Your task to perform on an android device: add a label to a message in the gmail app Image 0: 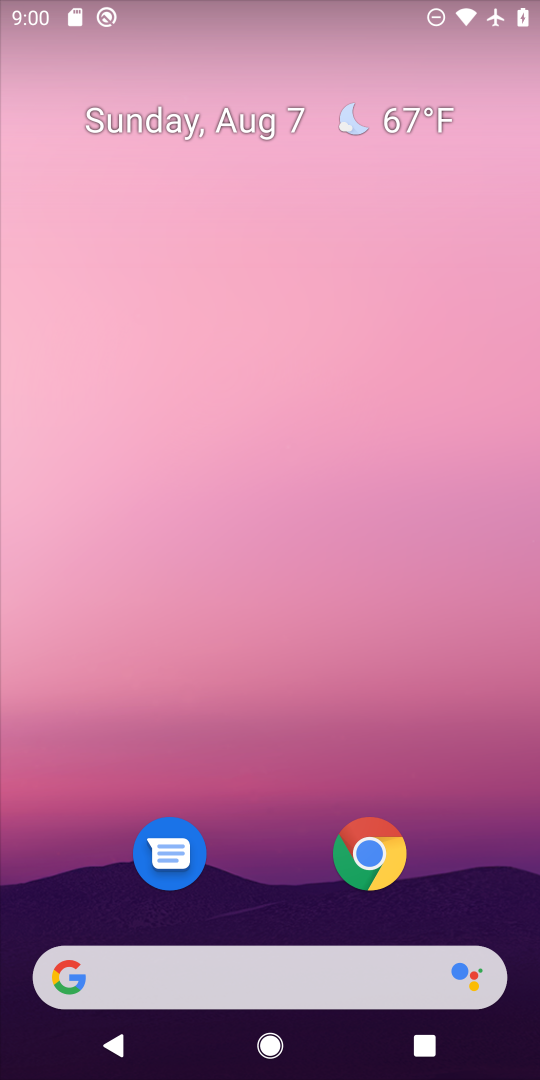
Step 0: drag from (278, 539) to (281, 388)
Your task to perform on an android device: add a label to a message in the gmail app Image 1: 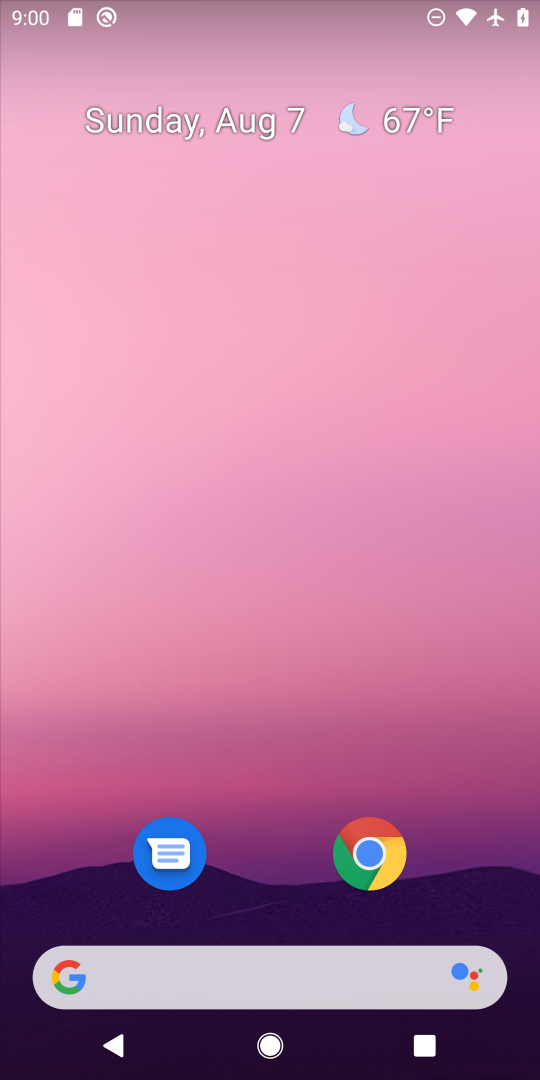
Step 1: drag from (258, 896) to (214, 334)
Your task to perform on an android device: add a label to a message in the gmail app Image 2: 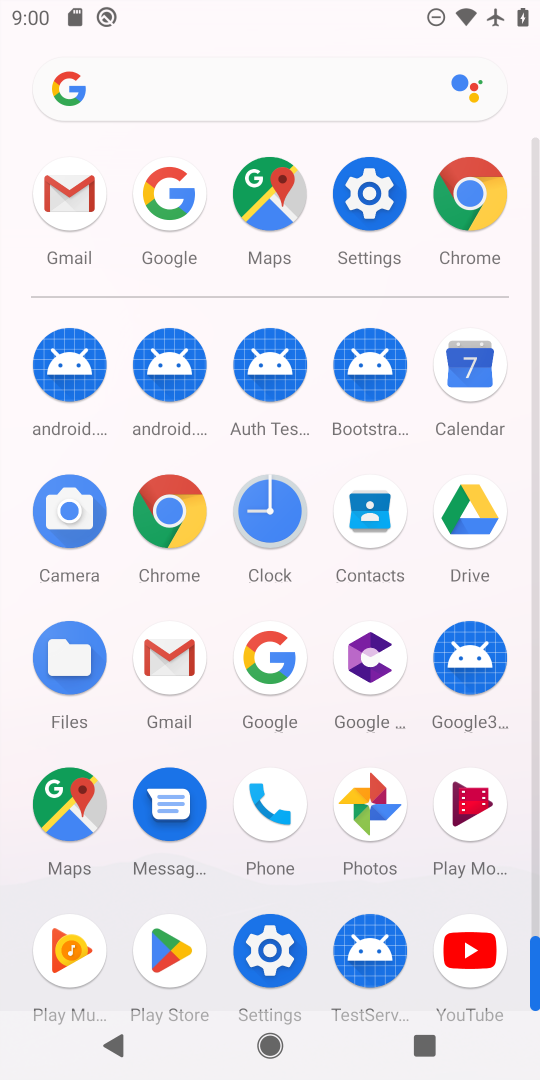
Step 2: click (191, 678)
Your task to perform on an android device: add a label to a message in the gmail app Image 3: 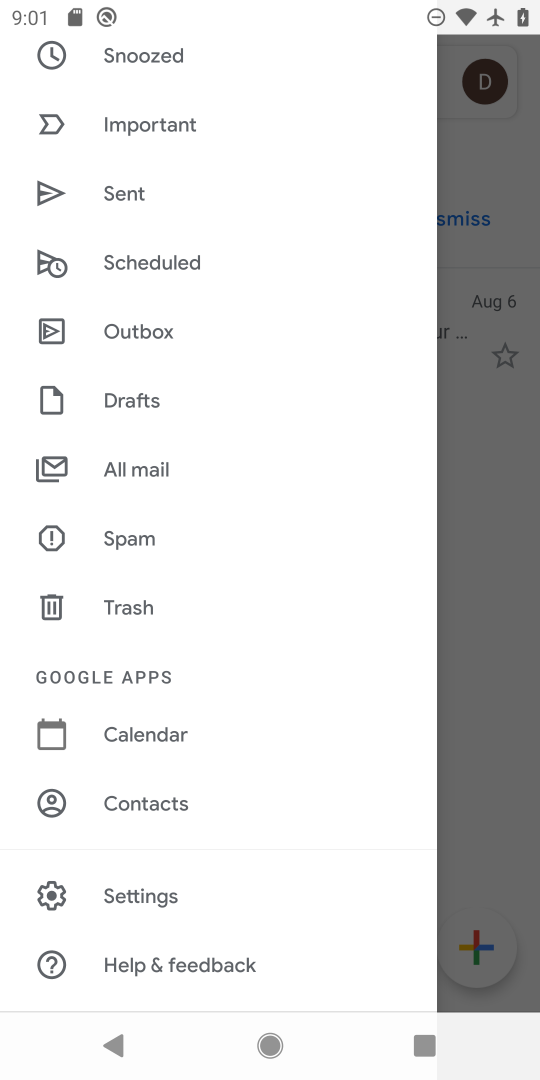
Step 3: click (167, 477)
Your task to perform on an android device: add a label to a message in the gmail app Image 4: 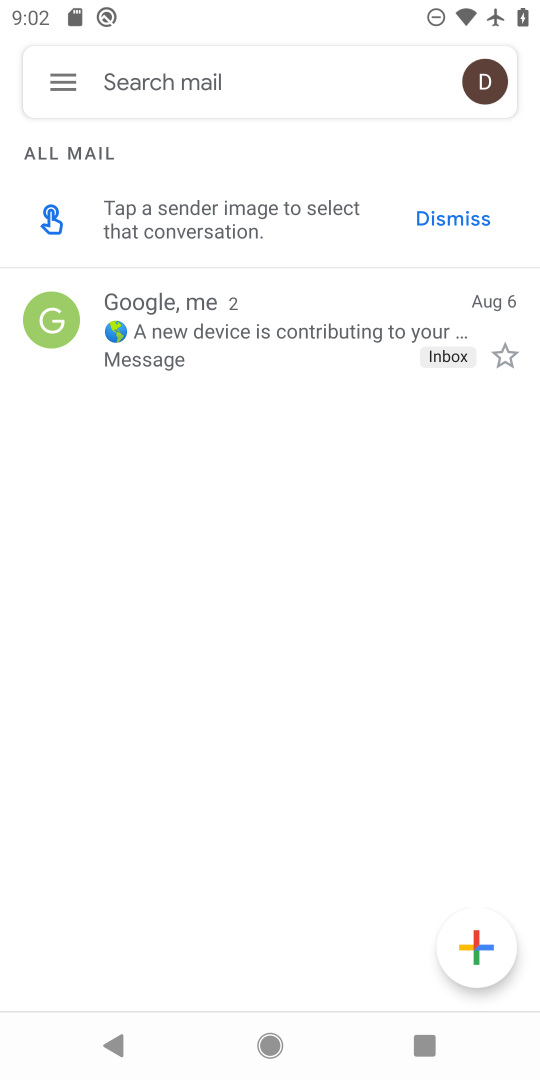
Step 4: click (273, 334)
Your task to perform on an android device: add a label to a message in the gmail app Image 5: 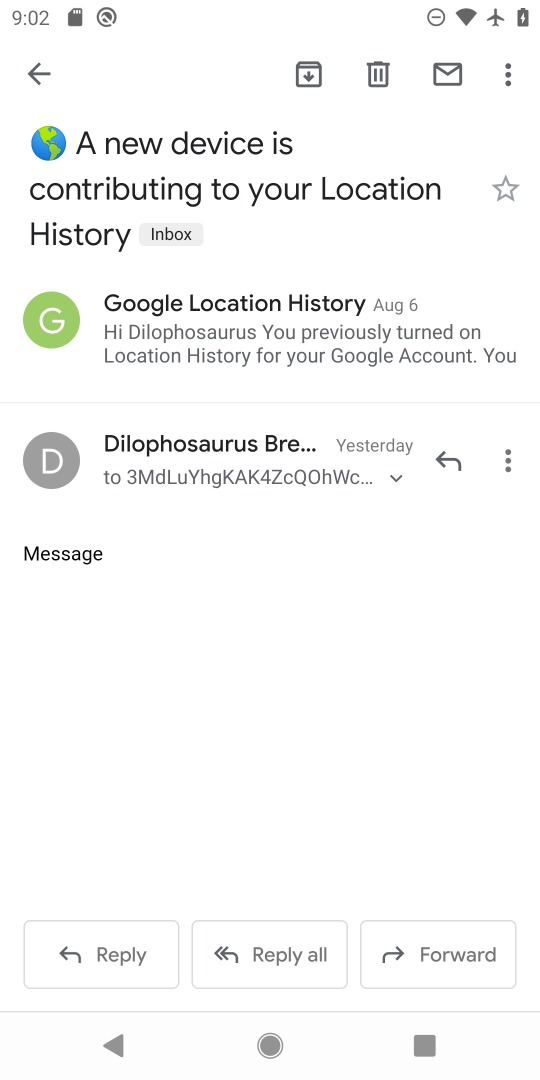
Step 5: click (510, 83)
Your task to perform on an android device: add a label to a message in the gmail app Image 6: 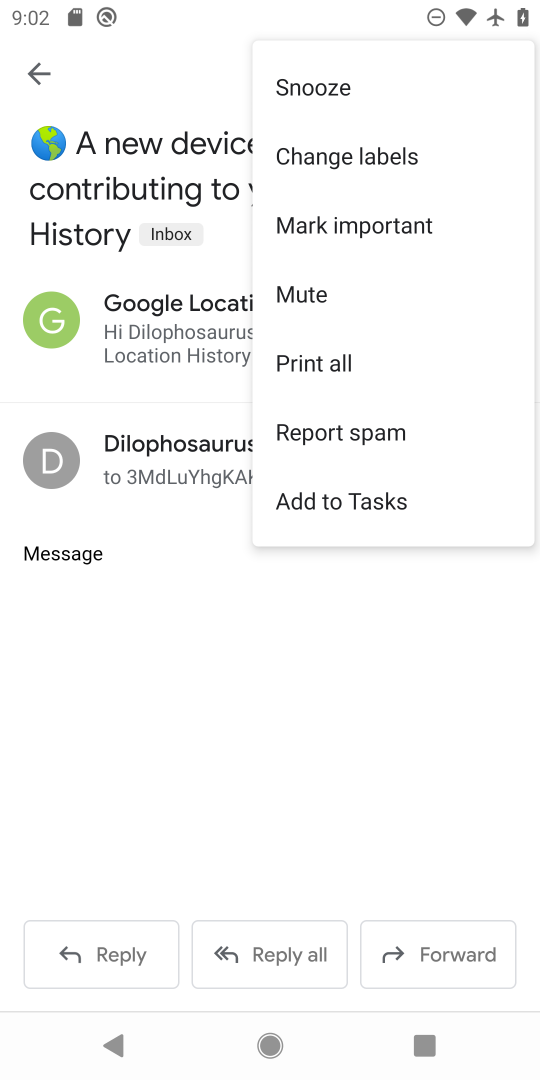
Step 6: click (387, 161)
Your task to perform on an android device: add a label to a message in the gmail app Image 7: 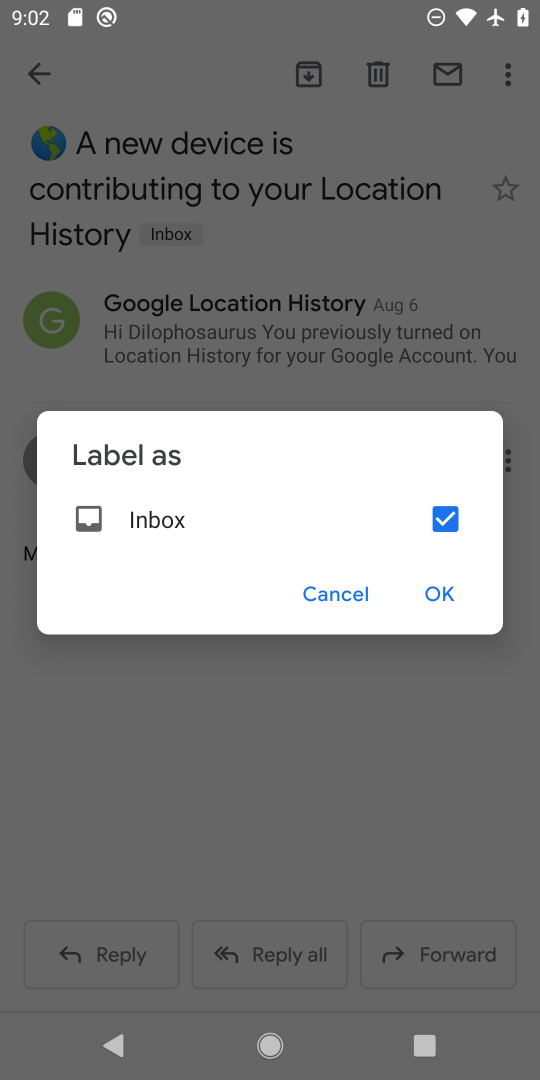
Step 7: click (440, 596)
Your task to perform on an android device: add a label to a message in the gmail app Image 8: 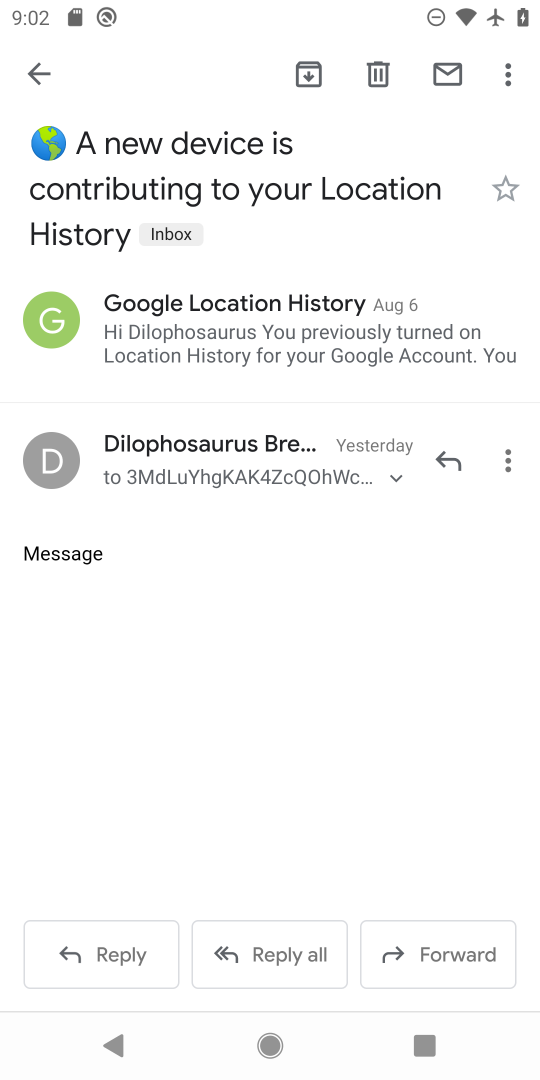
Step 8: task complete